Your task to perform on an android device: find photos in the google photos app Image 0: 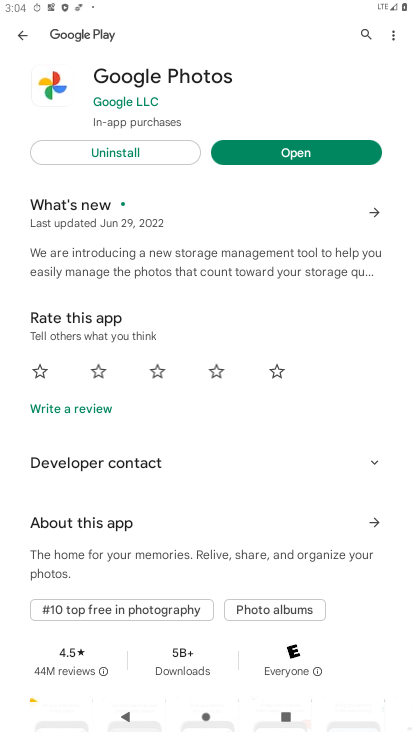
Step 0: click (286, 147)
Your task to perform on an android device: find photos in the google photos app Image 1: 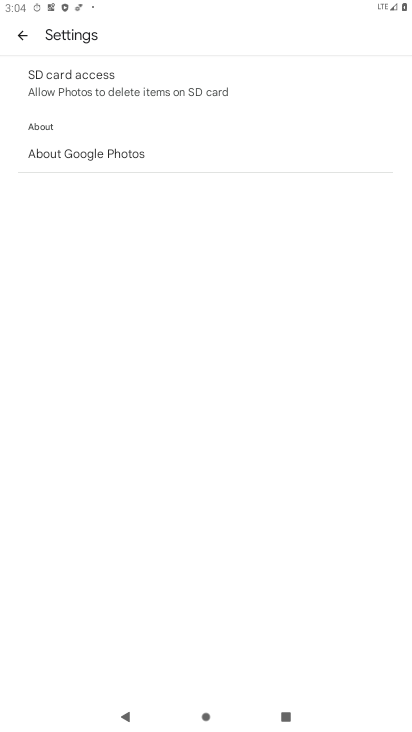
Step 1: click (23, 46)
Your task to perform on an android device: find photos in the google photos app Image 2: 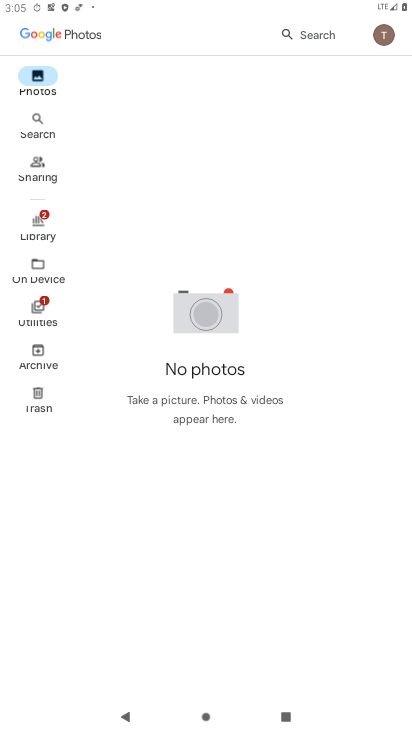
Step 2: task complete